Your task to perform on an android device: turn on priority inbox in the gmail app Image 0: 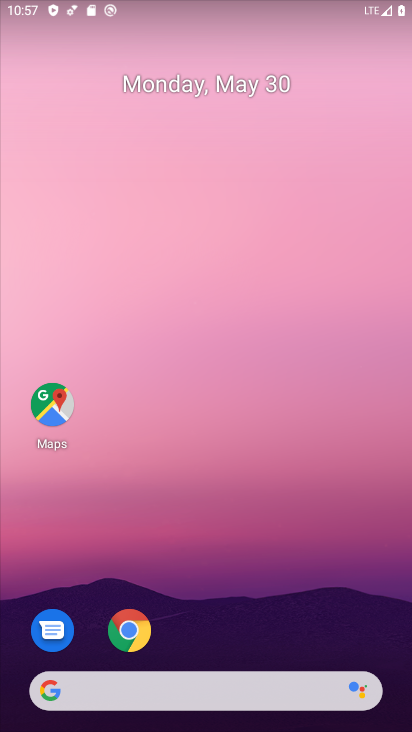
Step 0: drag from (186, 597) to (228, 232)
Your task to perform on an android device: turn on priority inbox in the gmail app Image 1: 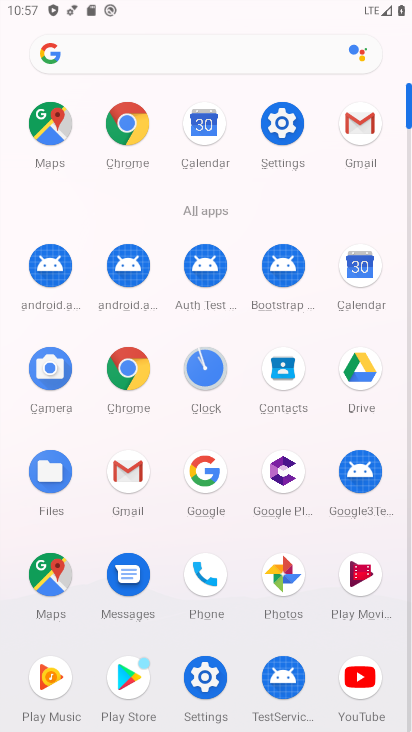
Step 1: click (358, 114)
Your task to perform on an android device: turn on priority inbox in the gmail app Image 2: 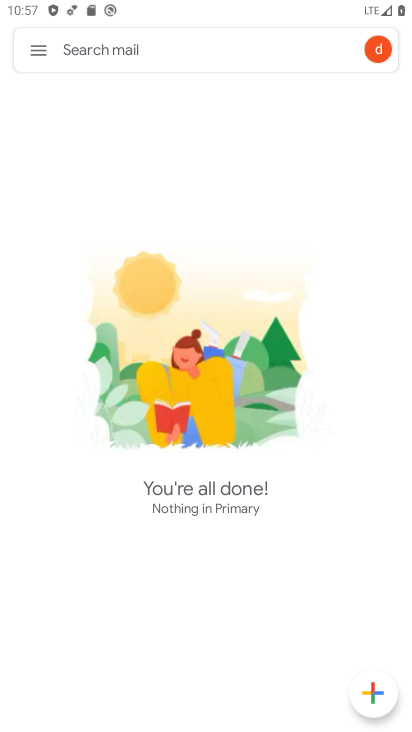
Step 2: click (30, 52)
Your task to perform on an android device: turn on priority inbox in the gmail app Image 3: 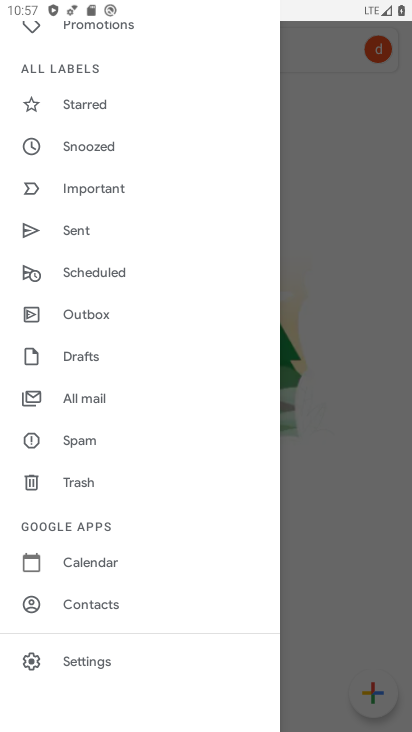
Step 3: click (100, 658)
Your task to perform on an android device: turn on priority inbox in the gmail app Image 4: 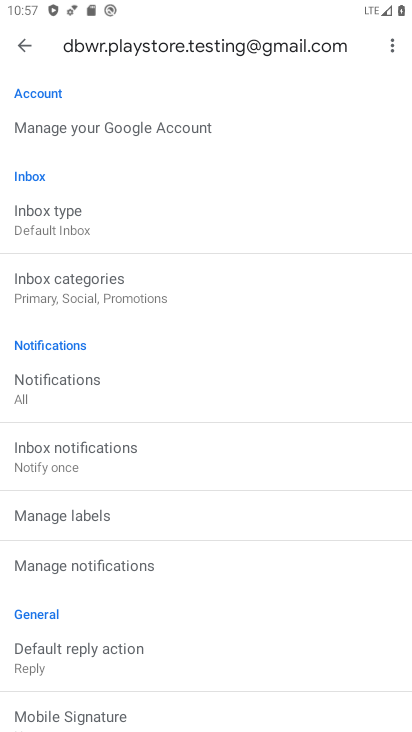
Step 4: click (99, 235)
Your task to perform on an android device: turn on priority inbox in the gmail app Image 5: 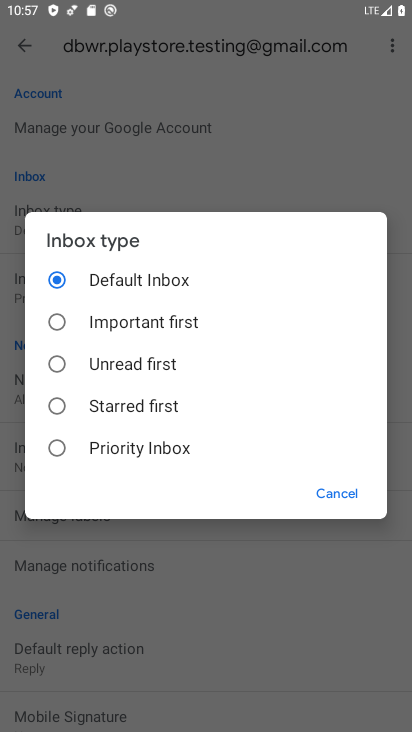
Step 5: click (104, 439)
Your task to perform on an android device: turn on priority inbox in the gmail app Image 6: 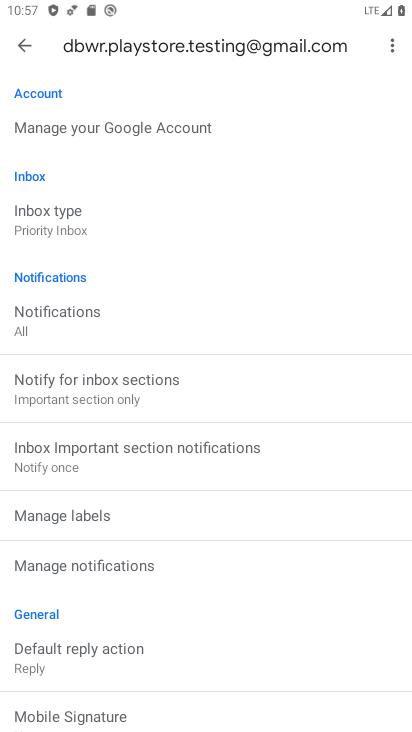
Step 6: task complete